Your task to perform on an android device: delete location history Image 0: 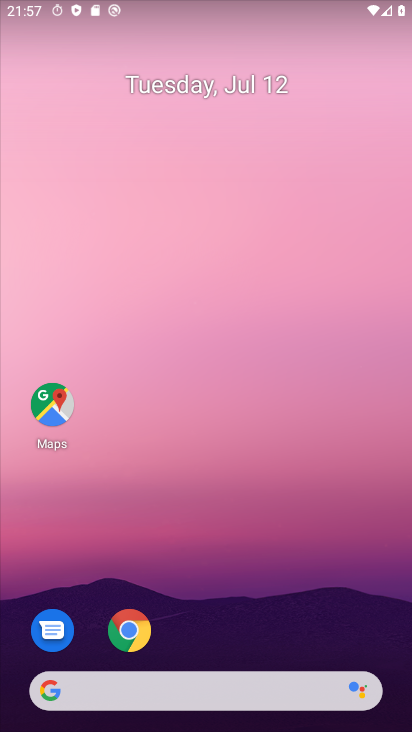
Step 0: click (32, 390)
Your task to perform on an android device: delete location history Image 1: 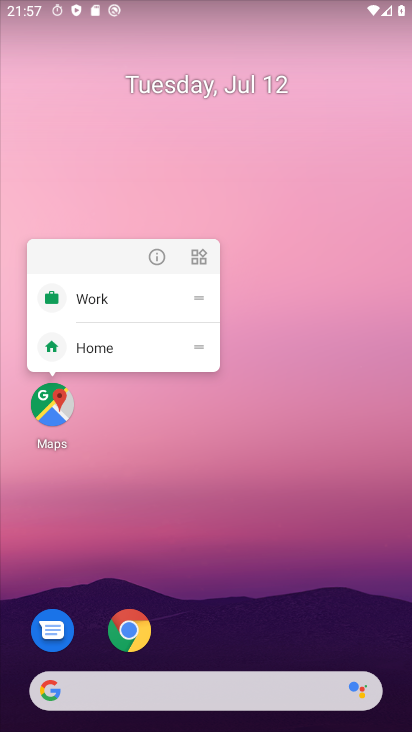
Step 1: click (54, 402)
Your task to perform on an android device: delete location history Image 2: 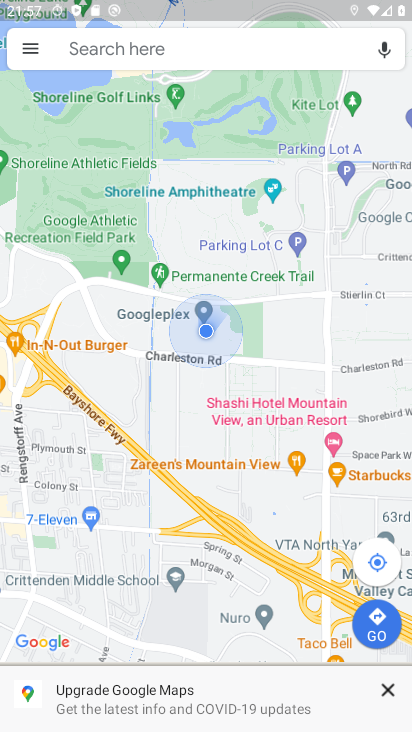
Step 2: click (25, 53)
Your task to perform on an android device: delete location history Image 3: 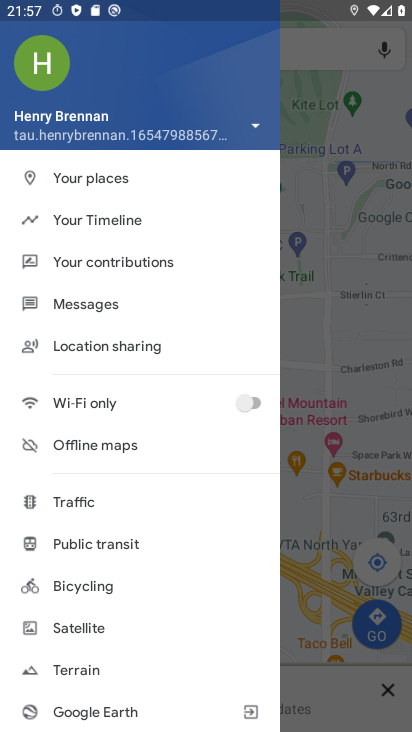
Step 3: click (126, 219)
Your task to perform on an android device: delete location history Image 4: 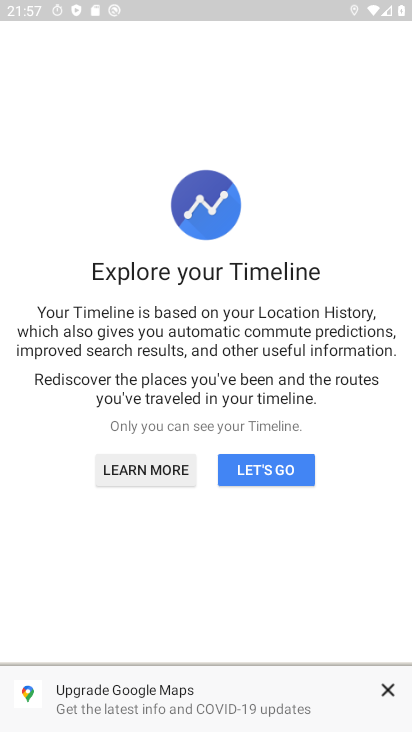
Step 4: click (252, 458)
Your task to perform on an android device: delete location history Image 5: 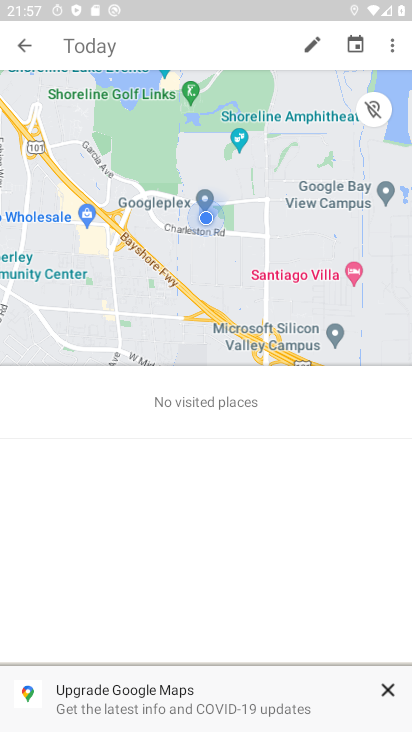
Step 5: click (390, 49)
Your task to perform on an android device: delete location history Image 6: 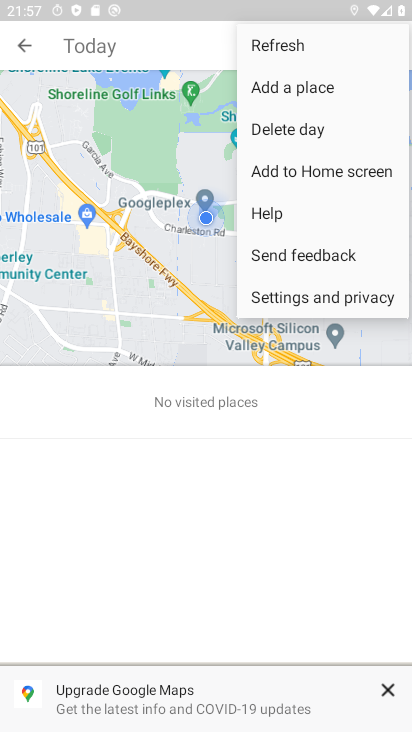
Step 6: click (328, 297)
Your task to perform on an android device: delete location history Image 7: 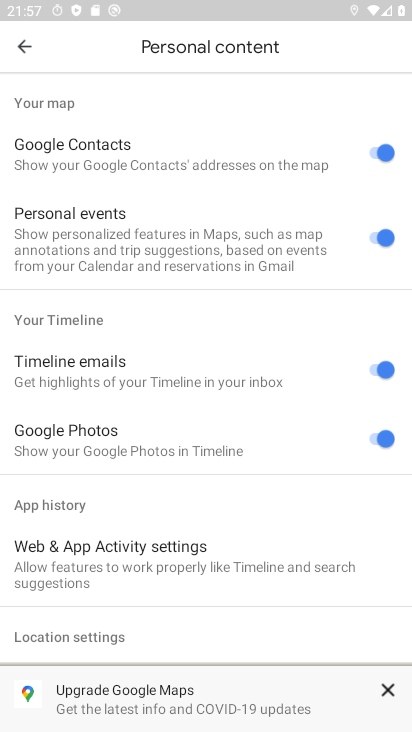
Step 7: drag from (170, 639) to (217, 42)
Your task to perform on an android device: delete location history Image 8: 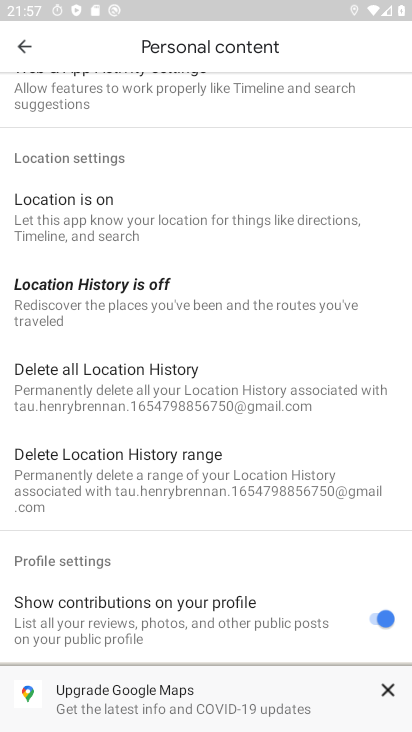
Step 8: click (153, 381)
Your task to perform on an android device: delete location history Image 9: 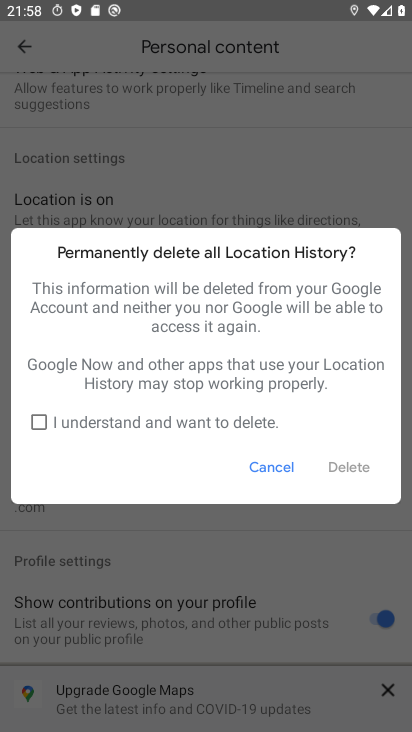
Step 9: click (68, 422)
Your task to perform on an android device: delete location history Image 10: 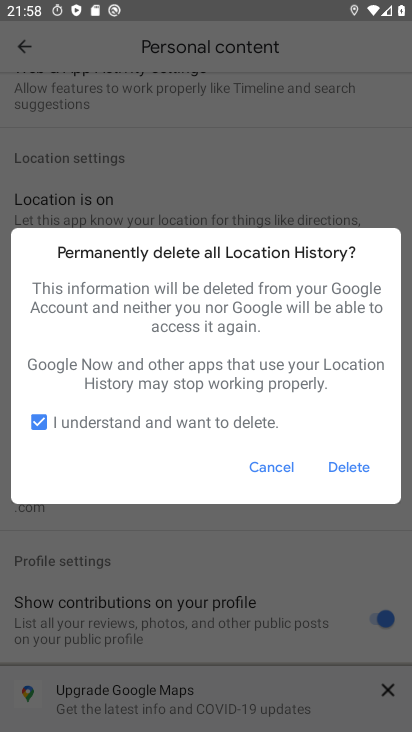
Step 10: click (361, 461)
Your task to perform on an android device: delete location history Image 11: 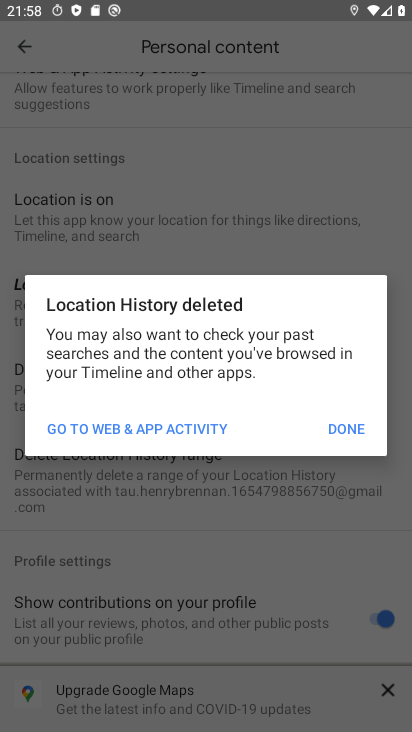
Step 11: click (350, 435)
Your task to perform on an android device: delete location history Image 12: 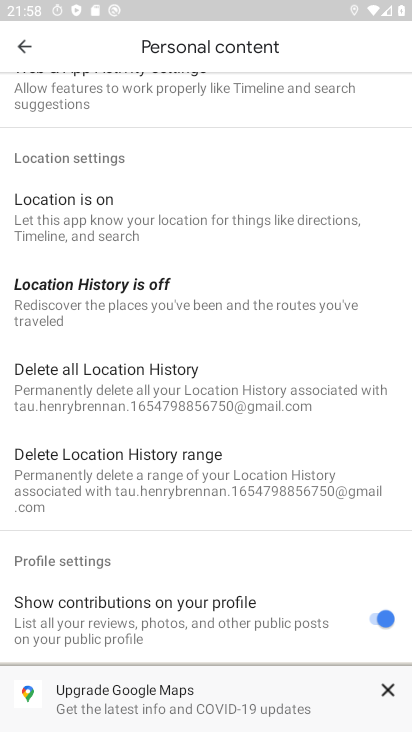
Step 12: task complete